Your task to perform on an android device: clear all cookies in the chrome app Image 0: 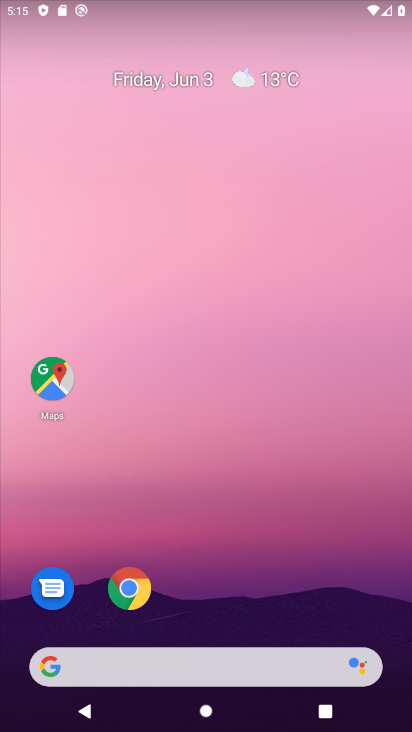
Step 0: drag from (37, 549) to (276, 147)
Your task to perform on an android device: clear all cookies in the chrome app Image 1: 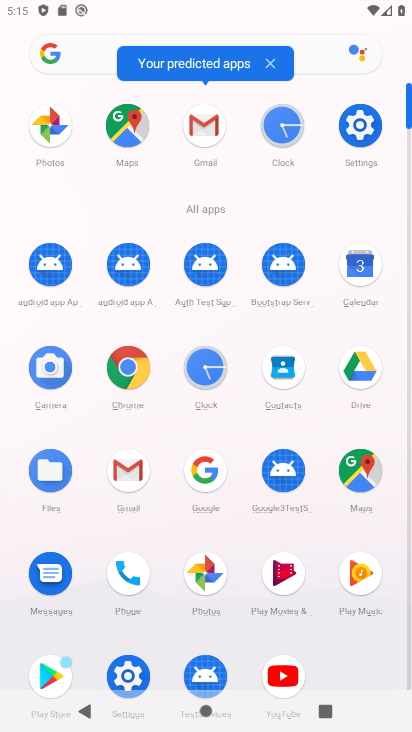
Step 1: click (120, 362)
Your task to perform on an android device: clear all cookies in the chrome app Image 2: 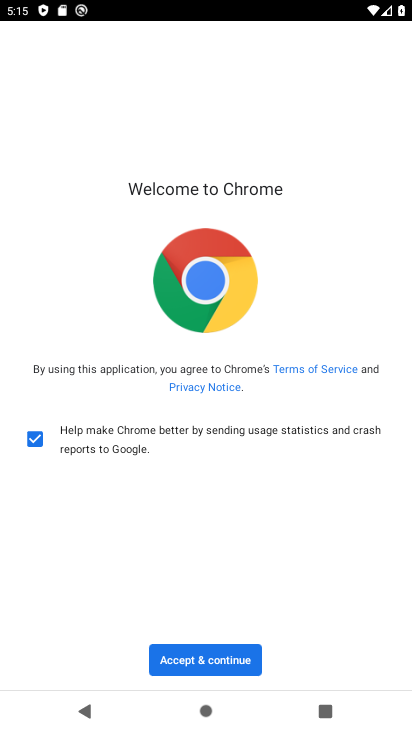
Step 2: click (246, 667)
Your task to perform on an android device: clear all cookies in the chrome app Image 3: 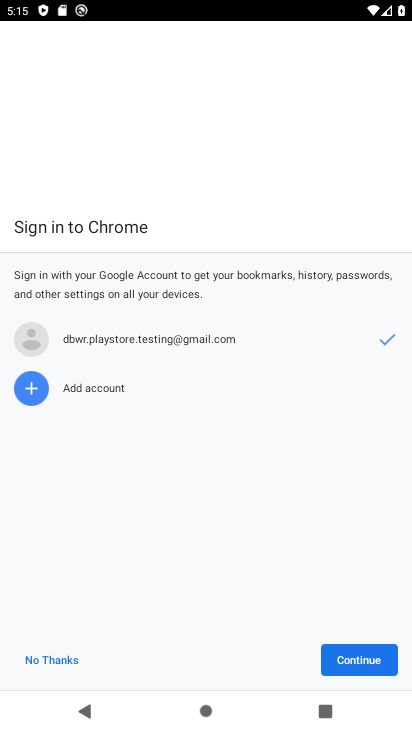
Step 3: click (60, 654)
Your task to perform on an android device: clear all cookies in the chrome app Image 4: 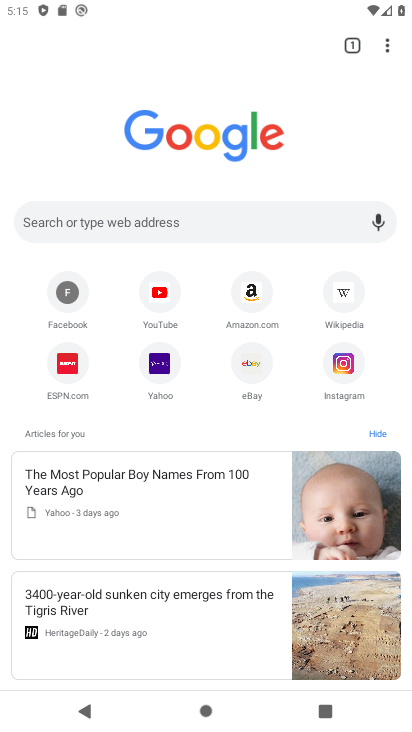
Step 4: click (384, 42)
Your task to perform on an android device: clear all cookies in the chrome app Image 5: 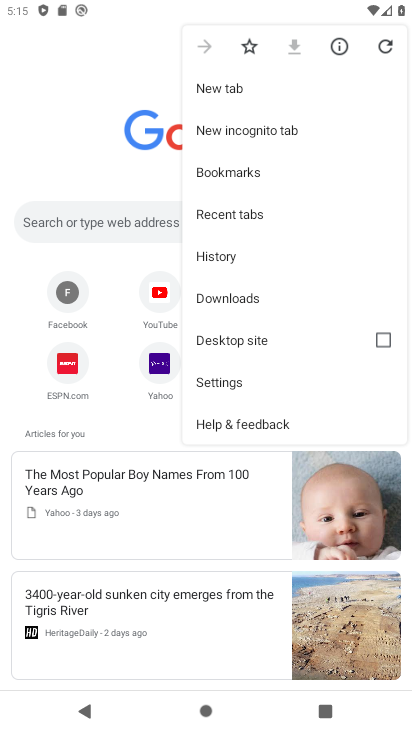
Step 5: click (242, 383)
Your task to perform on an android device: clear all cookies in the chrome app Image 6: 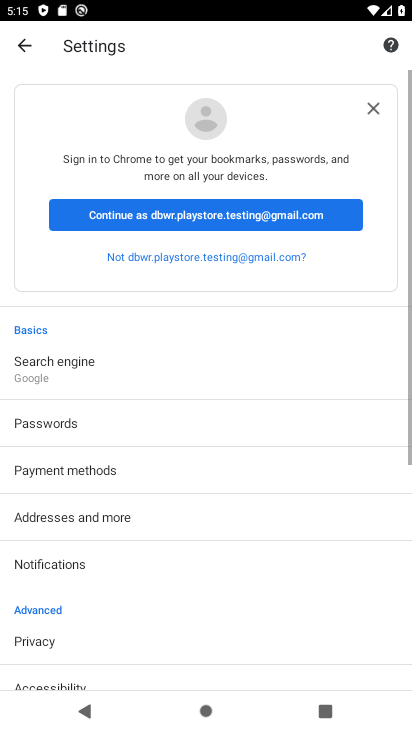
Step 6: drag from (14, 588) to (228, 222)
Your task to perform on an android device: clear all cookies in the chrome app Image 7: 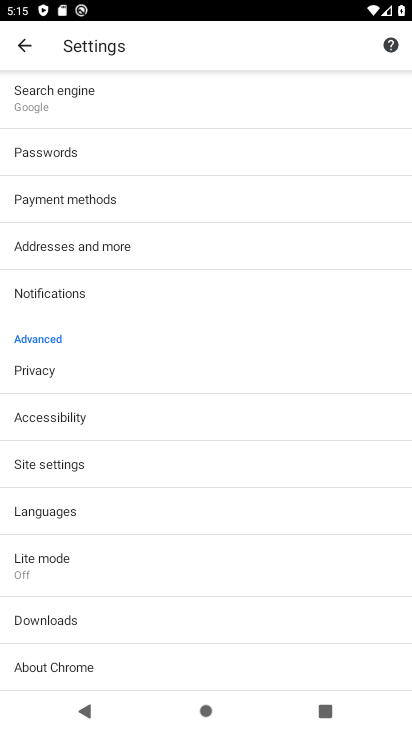
Step 7: drag from (133, 138) to (79, 630)
Your task to perform on an android device: clear all cookies in the chrome app Image 8: 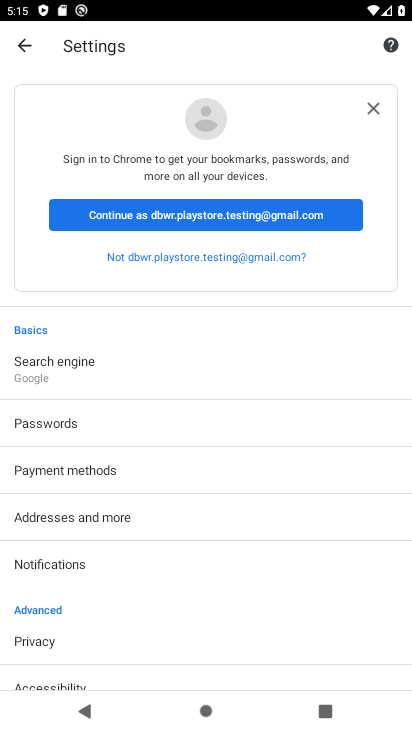
Step 8: click (375, 105)
Your task to perform on an android device: clear all cookies in the chrome app Image 9: 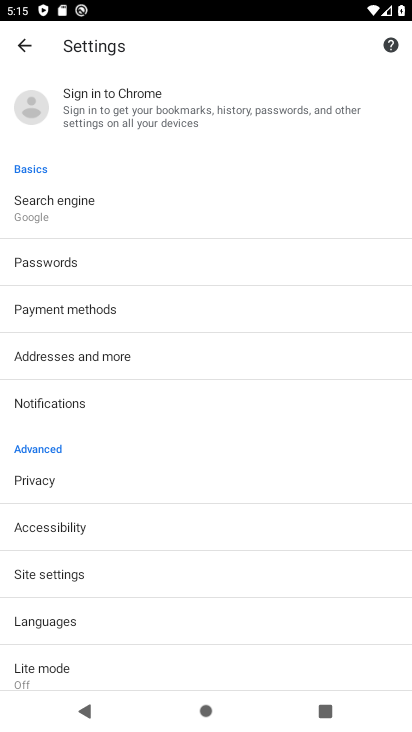
Step 9: task complete